Your task to perform on an android device: open a new tab in the chrome app Image 0: 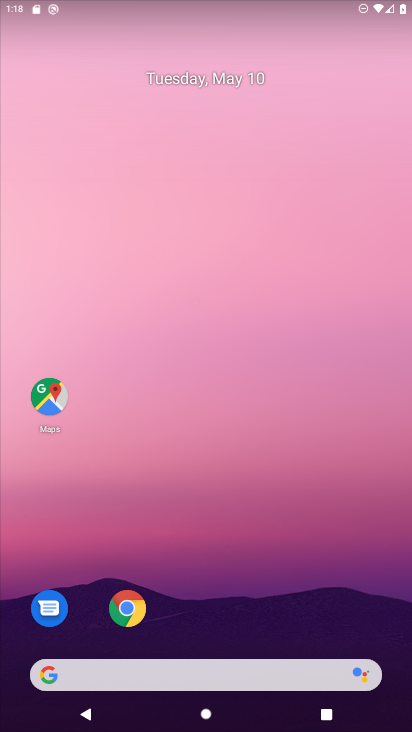
Step 0: drag from (266, 403) to (280, 276)
Your task to perform on an android device: open a new tab in the chrome app Image 1: 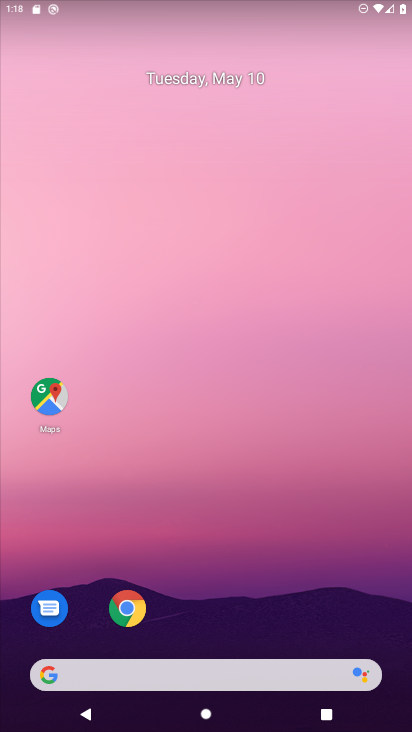
Step 1: drag from (262, 620) to (276, 219)
Your task to perform on an android device: open a new tab in the chrome app Image 2: 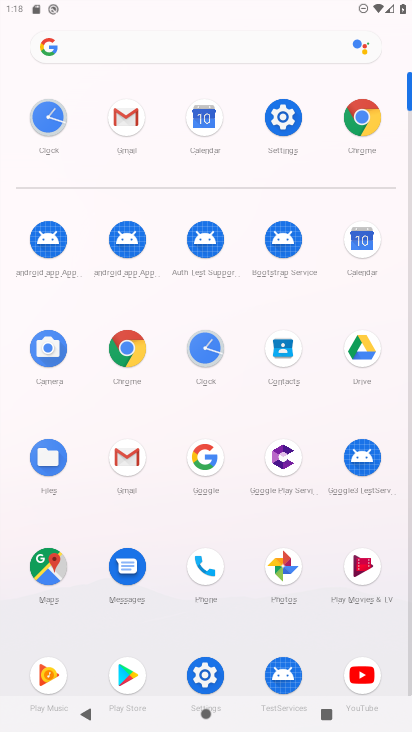
Step 2: click (118, 351)
Your task to perform on an android device: open a new tab in the chrome app Image 3: 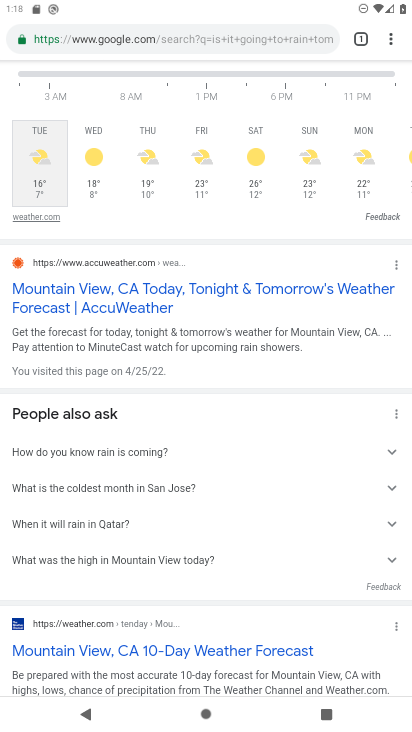
Step 3: click (364, 41)
Your task to perform on an android device: open a new tab in the chrome app Image 4: 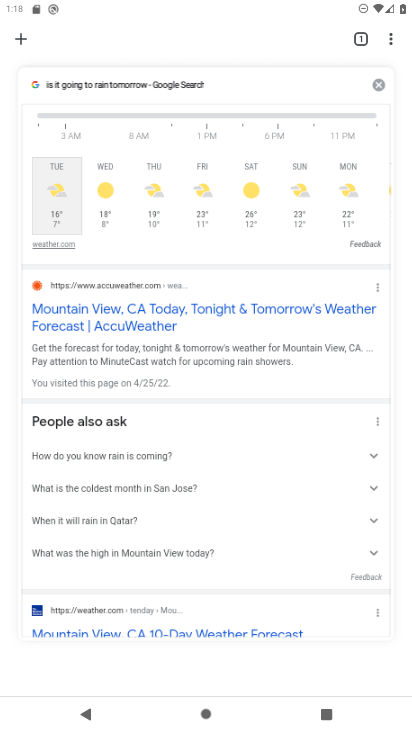
Step 4: click (14, 43)
Your task to perform on an android device: open a new tab in the chrome app Image 5: 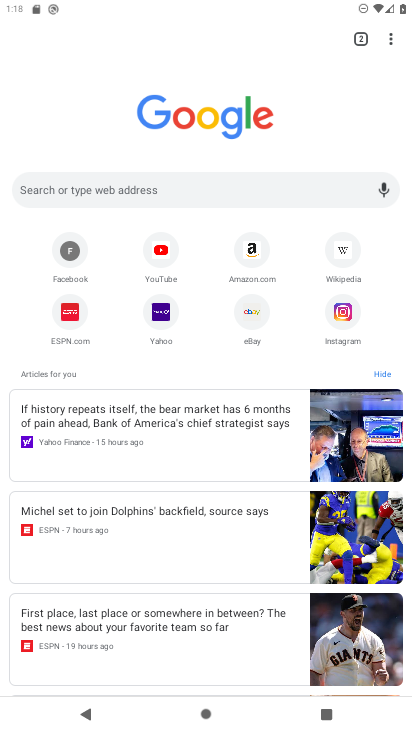
Step 5: task complete